Your task to perform on an android device: change text size in settings app Image 0: 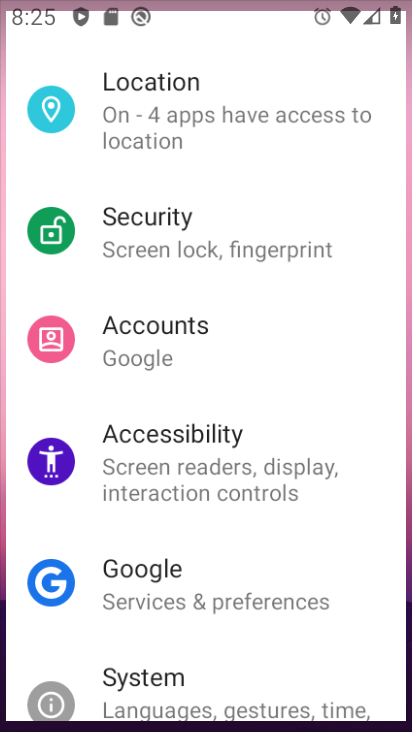
Step 0: drag from (186, 600) to (178, 55)
Your task to perform on an android device: change text size in settings app Image 1: 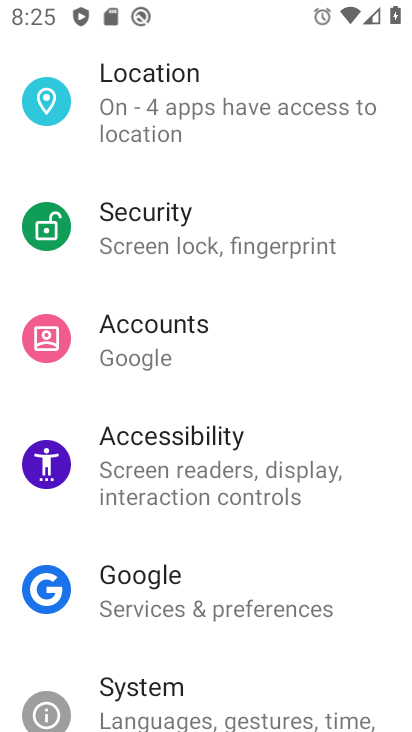
Step 1: press home button
Your task to perform on an android device: change text size in settings app Image 2: 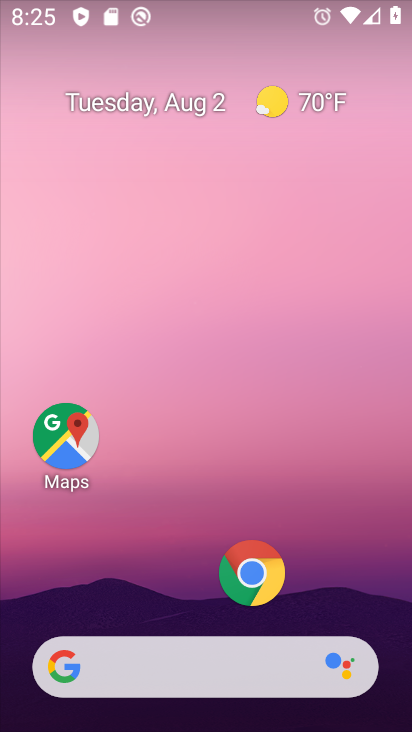
Step 2: drag from (186, 610) to (255, 21)
Your task to perform on an android device: change text size in settings app Image 3: 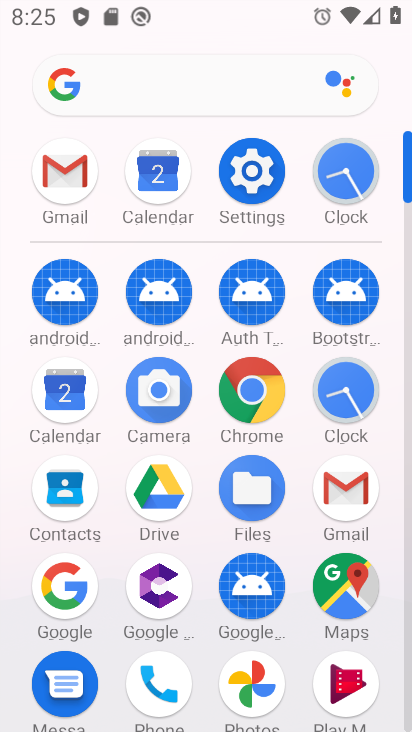
Step 3: click (252, 164)
Your task to perform on an android device: change text size in settings app Image 4: 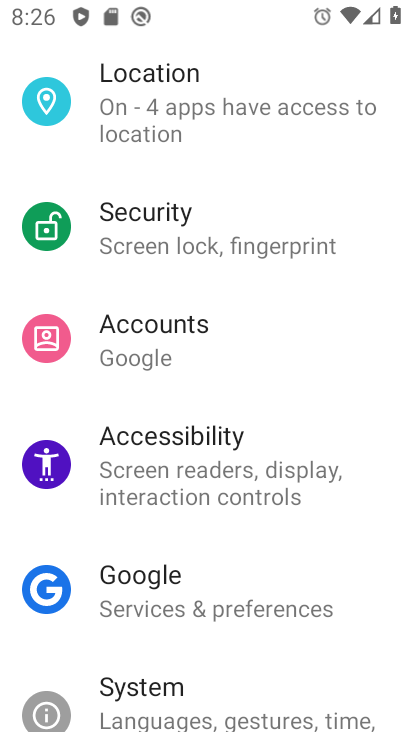
Step 4: drag from (154, 136) to (207, 724)
Your task to perform on an android device: change text size in settings app Image 5: 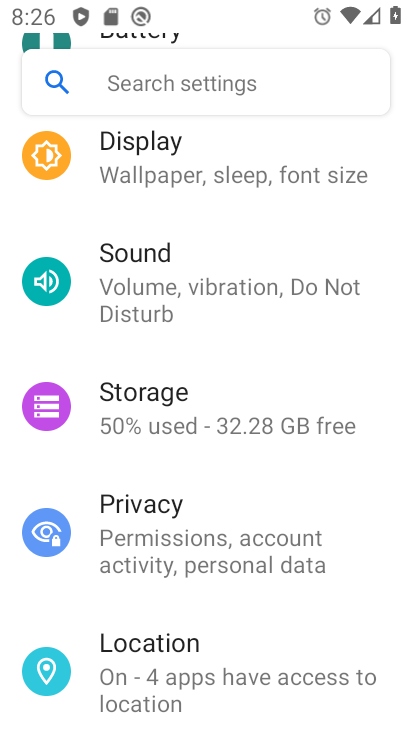
Step 5: click (171, 164)
Your task to perform on an android device: change text size in settings app Image 6: 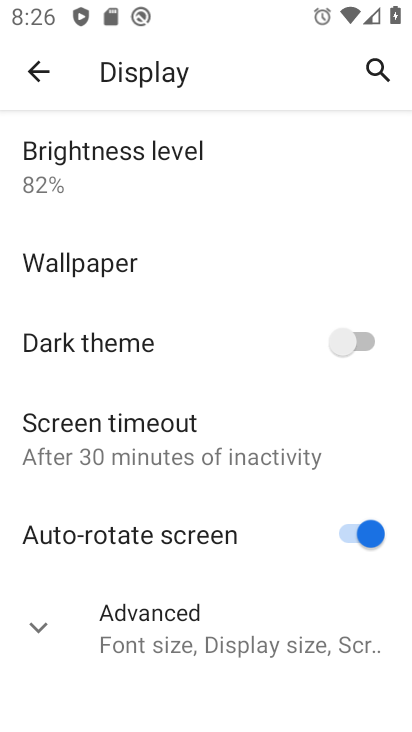
Step 6: click (33, 618)
Your task to perform on an android device: change text size in settings app Image 7: 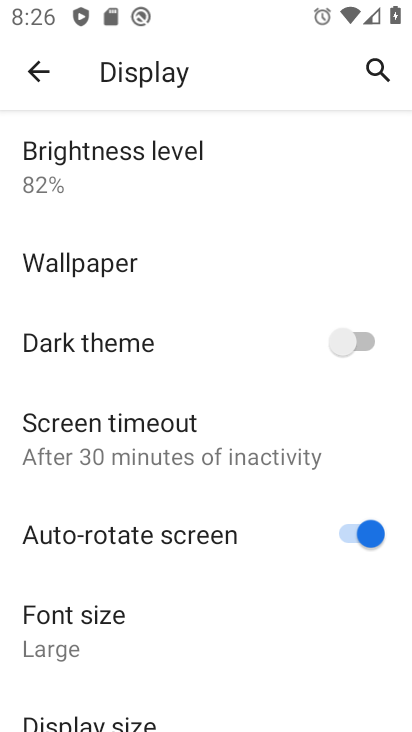
Step 7: click (95, 627)
Your task to perform on an android device: change text size in settings app Image 8: 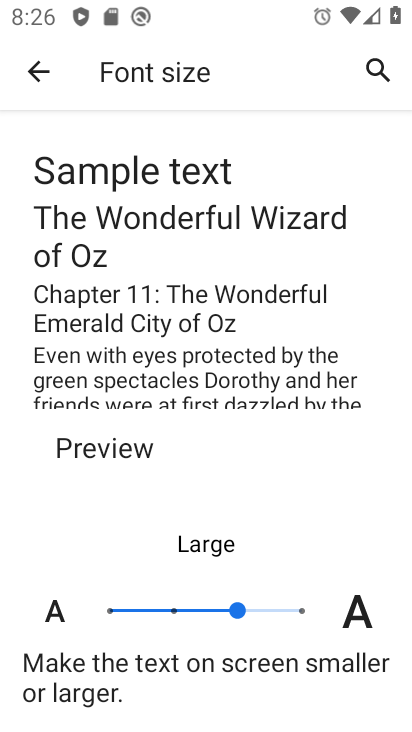
Step 8: click (116, 608)
Your task to perform on an android device: change text size in settings app Image 9: 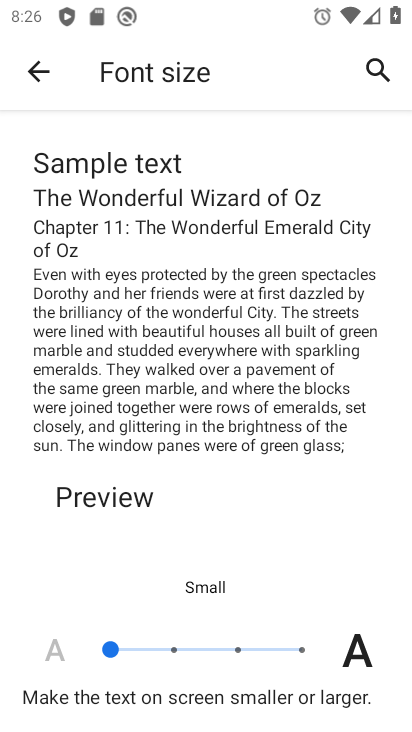
Step 9: task complete